Your task to perform on an android device: What's the weather going to be this weekend? Image 0: 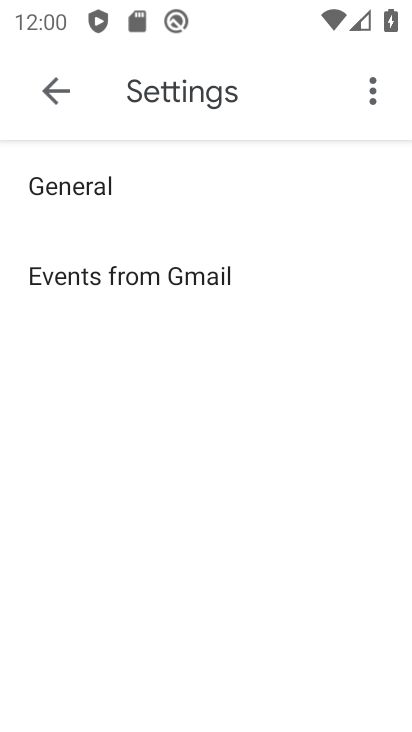
Step 0: press home button
Your task to perform on an android device: What's the weather going to be this weekend? Image 1: 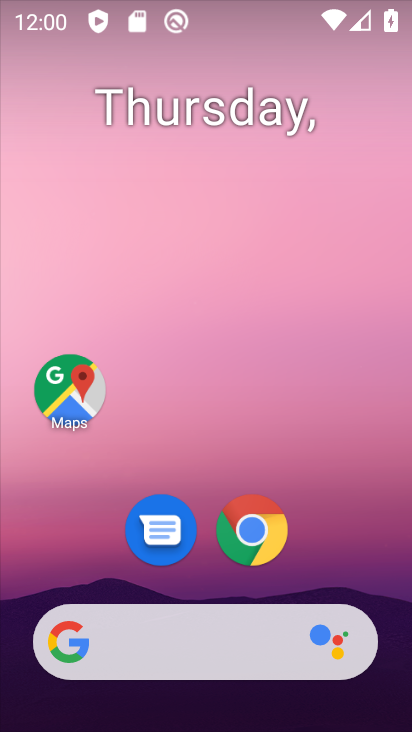
Step 1: drag from (11, 272) to (308, 319)
Your task to perform on an android device: What's the weather going to be this weekend? Image 2: 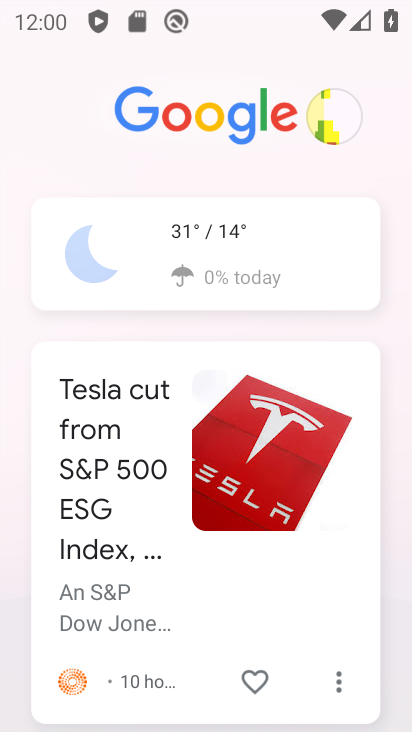
Step 2: click (82, 263)
Your task to perform on an android device: What's the weather going to be this weekend? Image 3: 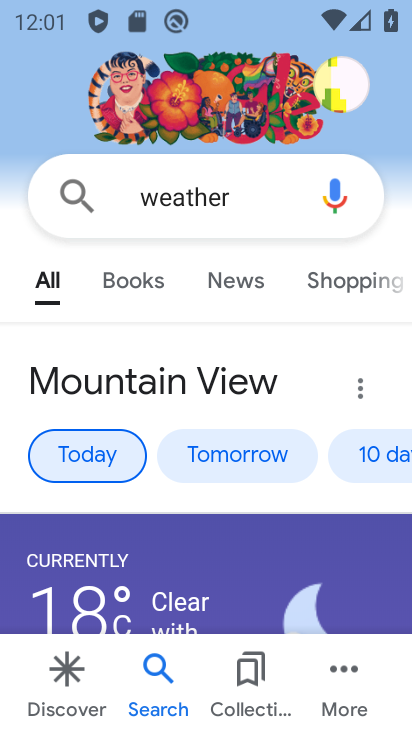
Step 3: click (363, 468)
Your task to perform on an android device: What's the weather going to be this weekend? Image 4: 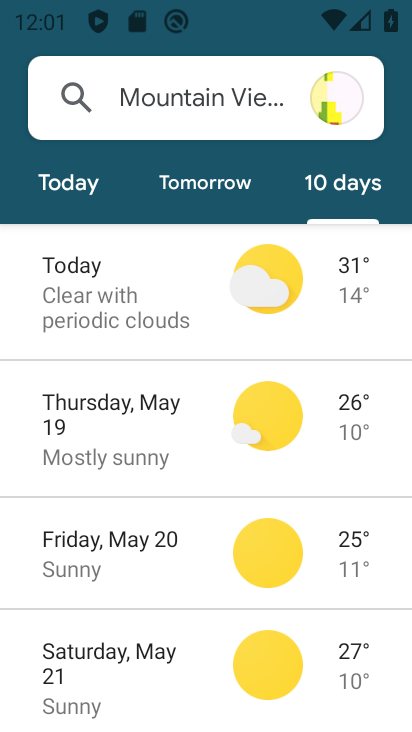
Step 4: task complete